Your task to perform on an android device: Go to Yahoo.com Image 0: 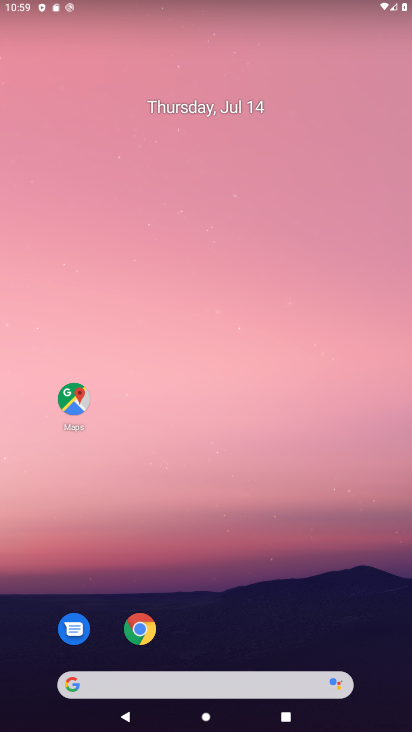
Step 0: click (136, 633)
Your task to perform on an android device: Go to Yahoo.com Image 1: 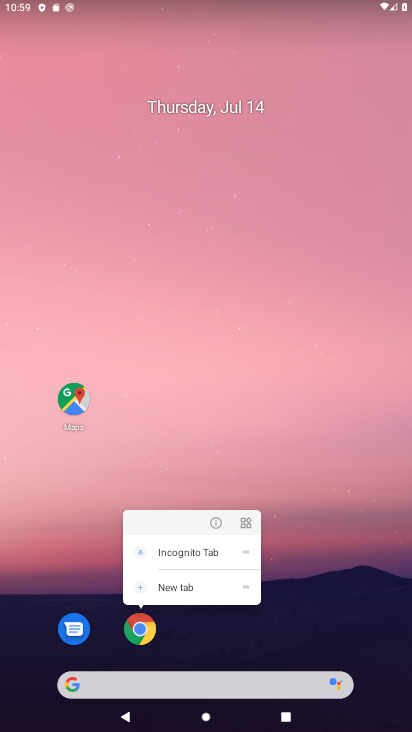
Step 1: click (143, 636)
Your task to perform on an android device: Go to Yahoo.com Image 2: 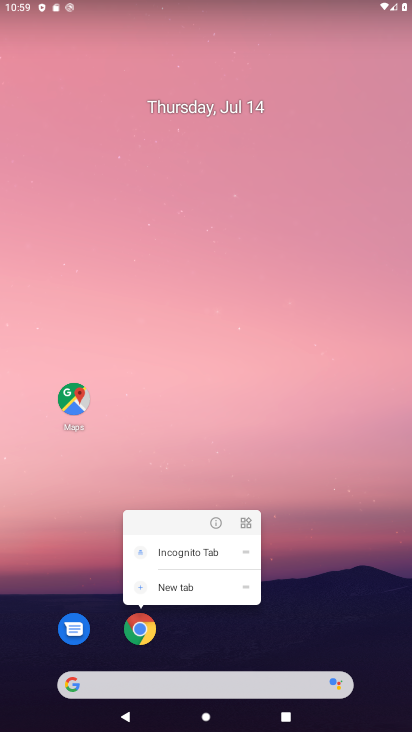
Step 2: click (139, 633)
Your task to perform on an android device: Go to Yahoo.com Image 3: 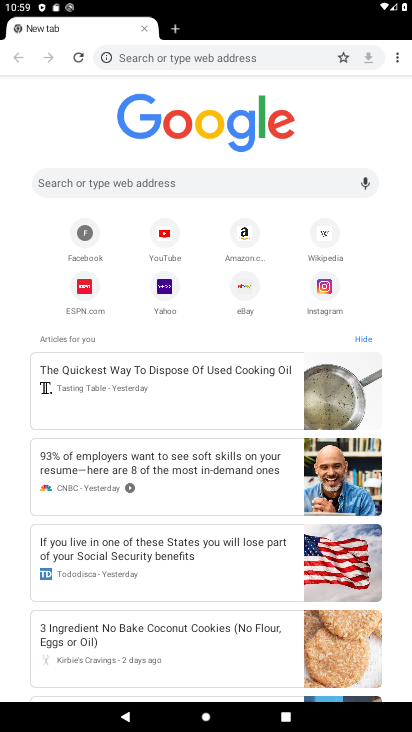
Step 3: click (160, 308)
Your task to perform on an android device: Go to Yahoo.com Image 4: 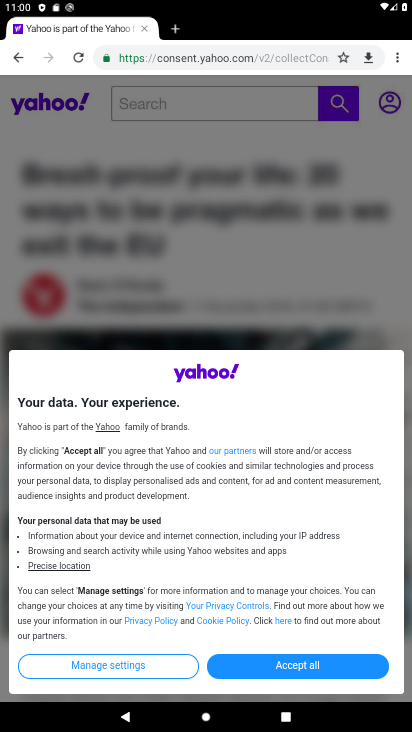
Step 4: task complete